Your task to perform on an android device: Open calendar and show me the third week of next month Image 0: 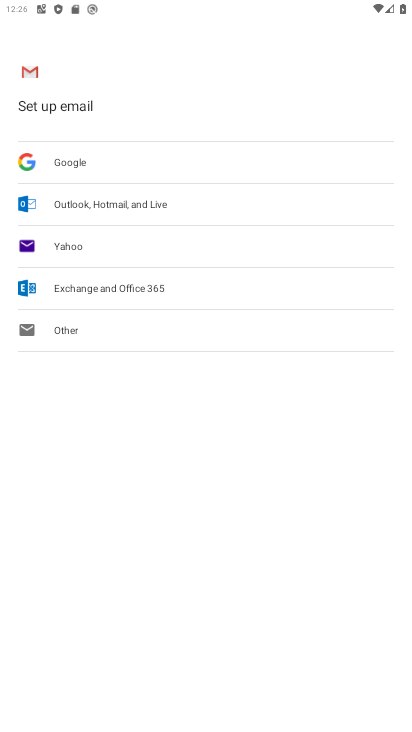
Step 0: press home button
Your task to perform on an android device: Open calendar and show me the third week of next month Image 1: 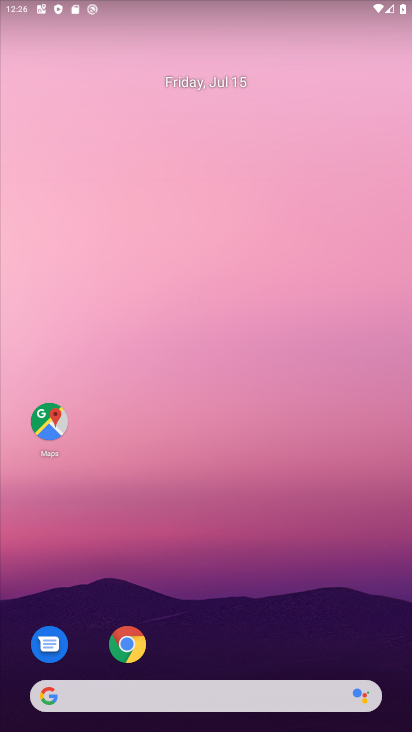
Step 1: drag from (0, 717) to (301, 74)
Your task to perform on an android device: Open calendar and show me the third week of next month Image 2: 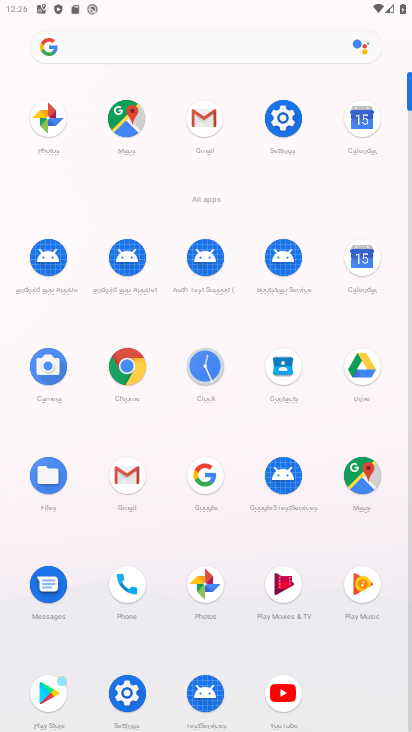
Step 2: click (345, 269)
Your task to perform on an android device: Open calendar and show me the third week of next month Image 3: 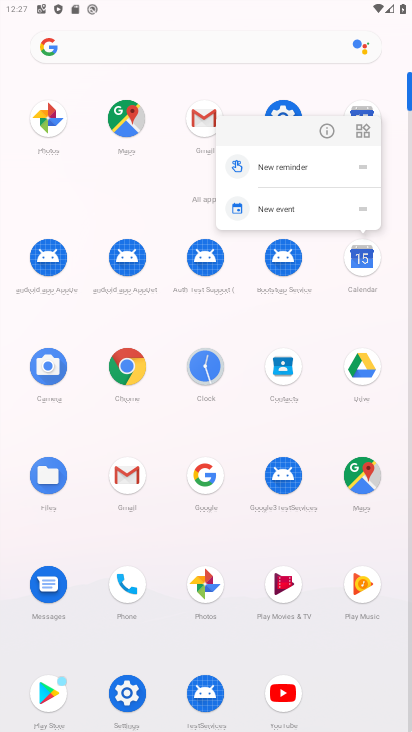
Step 3: click (365, 264)
Your task to perform on an android device: Open calendar and show me the third week of next month Image 4: 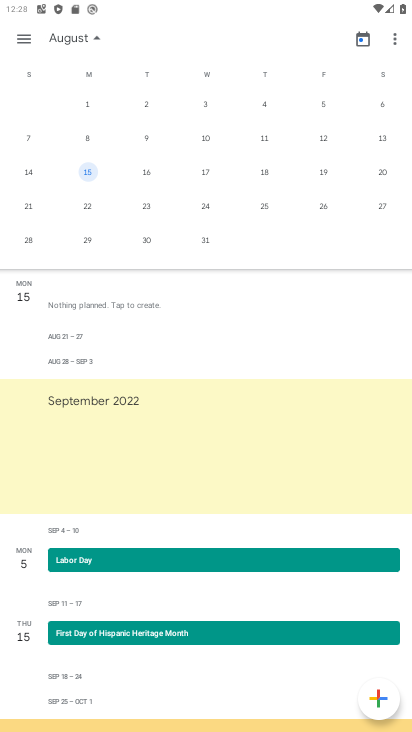
Step 4: task complete